Your task to perform on an android device: turn on notifications settings in the gmail app Image 0: 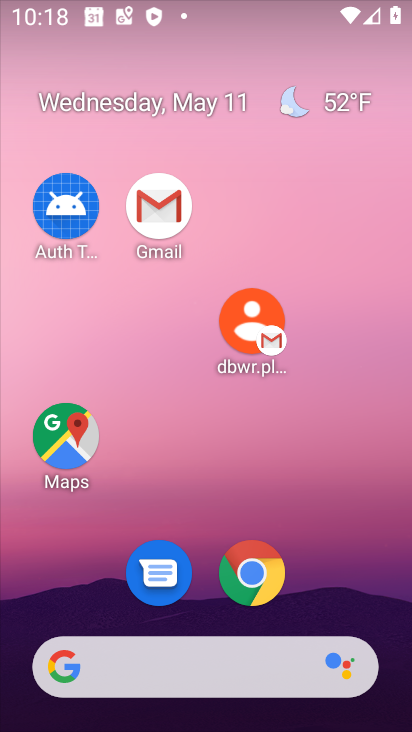
Step 0: drag from (404, 590) to (5, 109)
Your task to perform on an android device: turn on notifications settings in the gmail app Image 1: 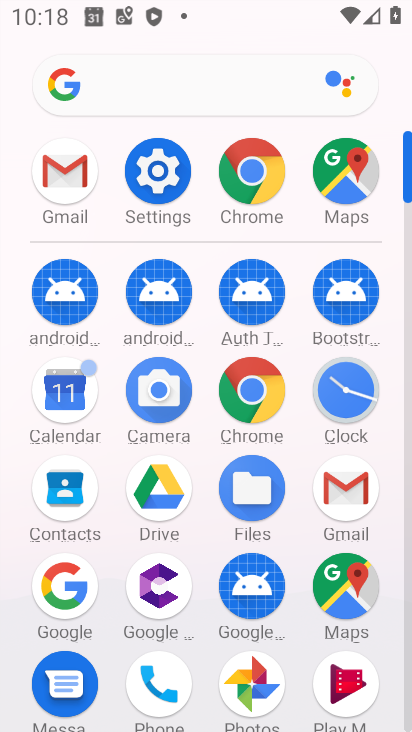
Step 1: click (348, 481)
Your task to perform on an android device: turn on notifications settings in the gmail app Image 2: 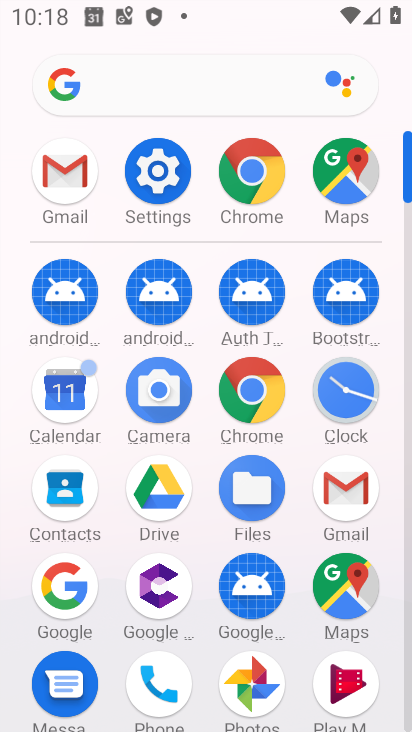
Step 2: click (349, 480)
Your task to perform on an android device: turn on notifications settings in the gmail app Image 3: 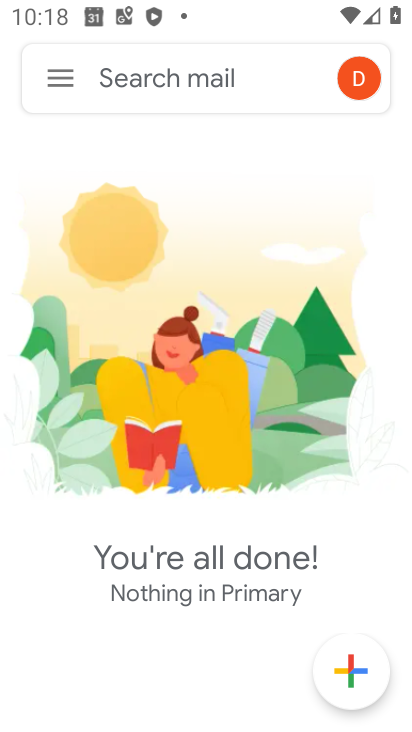
Step 3: click (62, 75)
Your task to perform on an android device: turn on notifications settings in the gmail app Image 4: 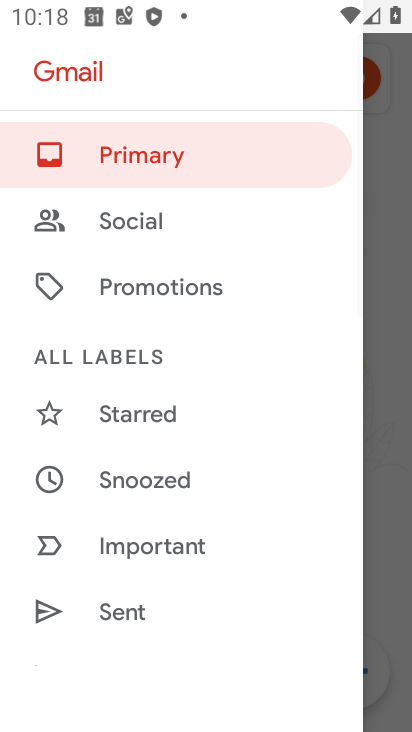
Step 4: drag from (139, 251) to (128, 170)
Your task to perform on an android device: turn on notifications settings in the gmail app Image 5: 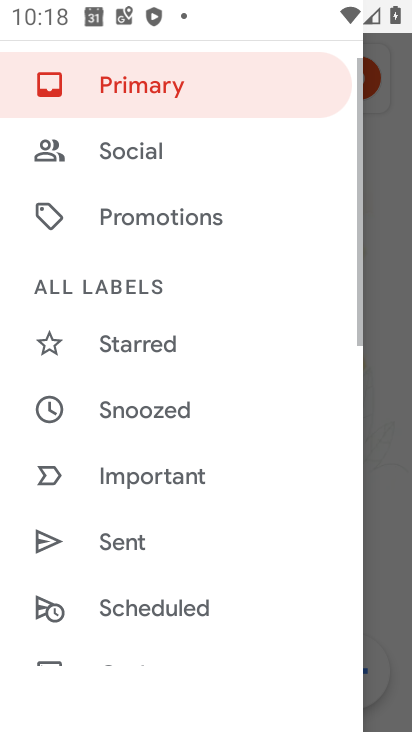
Step 5: drag from (150, 487) to (134, 96)
Your task to perform on an android device: turn on notifications settings in the gmail app Image 6: 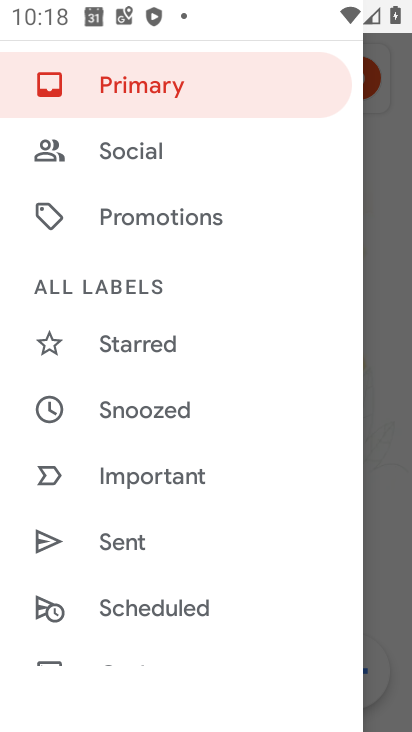
Step 6: drag from (160, 540) to (87, 65)
Your task to perform on an android device: turn on notifications settings in the gmail app Image 7: 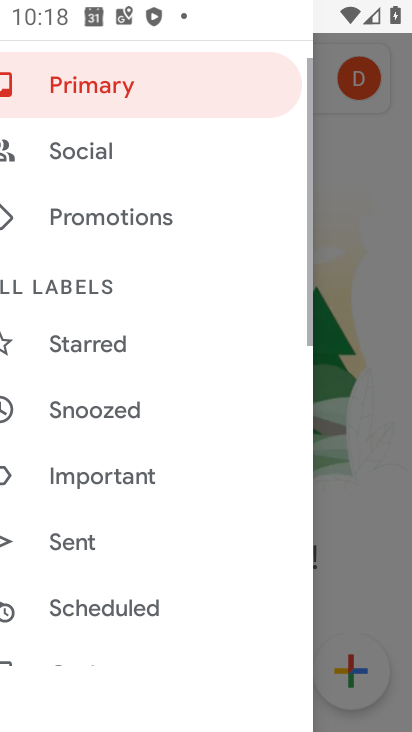
Step 7: drag from (138, 376) to (136, 1)
Your task to perform on an android device: turn on notifications settings in the gmail app Image 8: 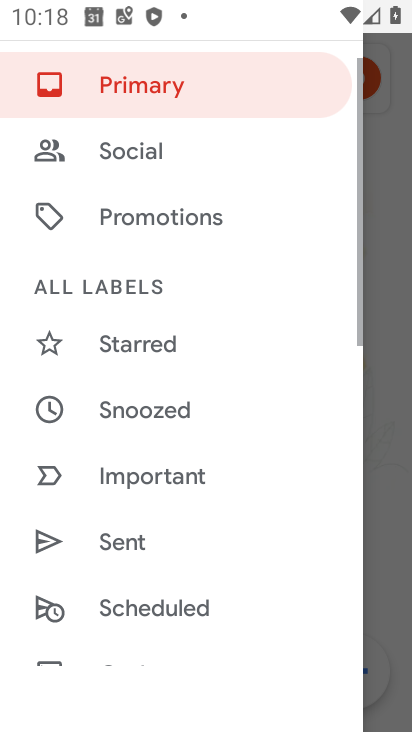
Step 8: drag from (159, 512) to (129, 15)
Your task to perform on an android device: turn on notifications settings in the gmail app Image 9: 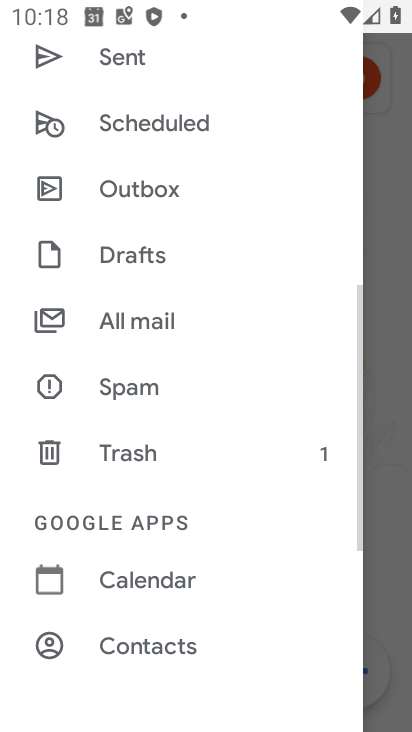
Step 9: drag from (175, 500) to (144, 129)
Your task to perform on an android device: turn on notifications settings in the gmail app Image 10: 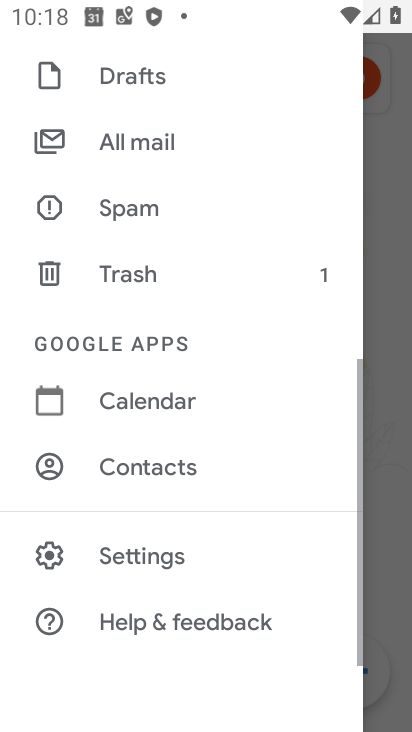
Step 10: click (132, 556)
Your task to perform on an android device: turn on notifications settings in the gmail app Image 11: 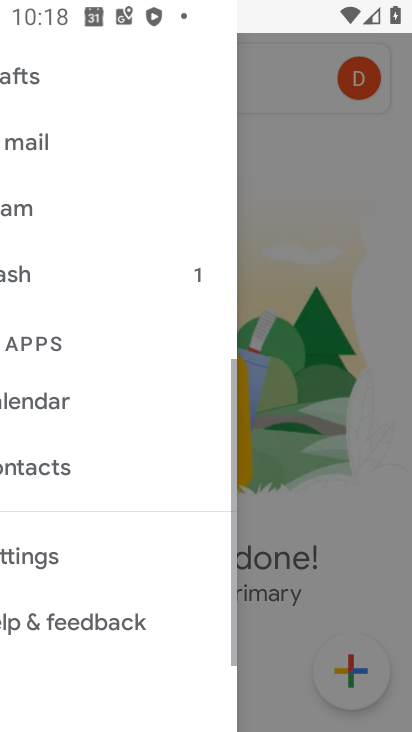
Step 11: click (134, 552)
Your task to perform on an android device: turn on notifications settings in the gmail app Image 12: 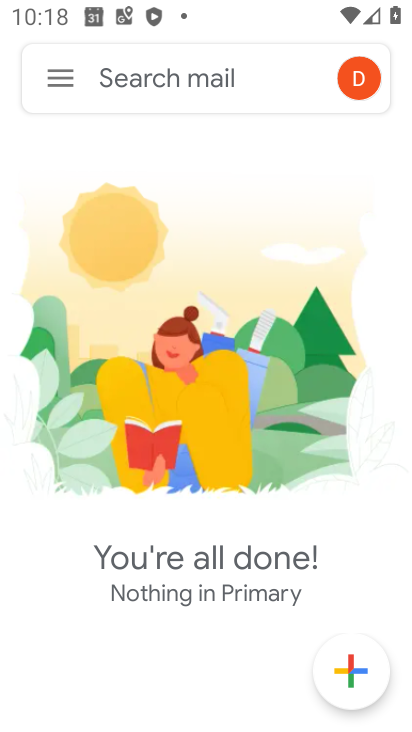
Step 12: click (135, 552)
Your task to perform on an android device: turn on notifications settings in the gmail app Image 13: 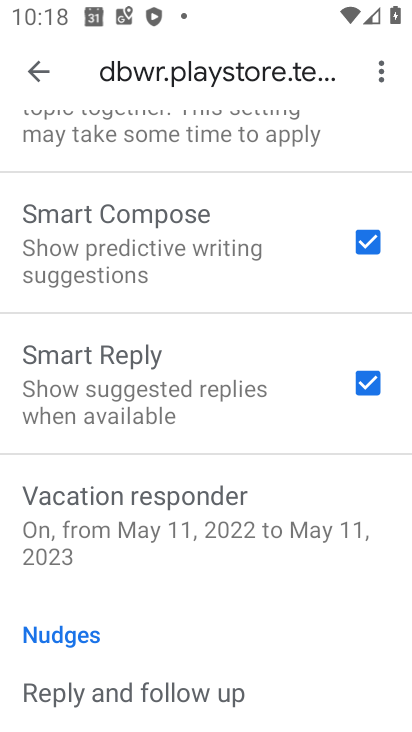
Step 13: drag from (194, 224) to (249, 466)
Your task to perform on an android device: turn on notifications settings in the gmail app Image 14: 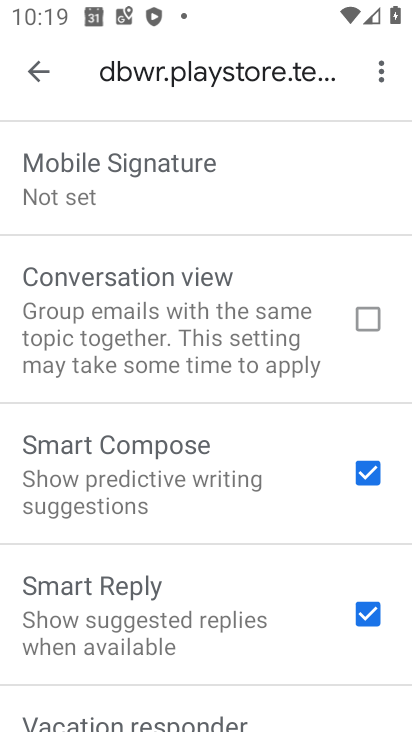
Step 14: click (149, 644)
Your task to perform on an android device: turn on notifications settings in the gmail app Image 15: 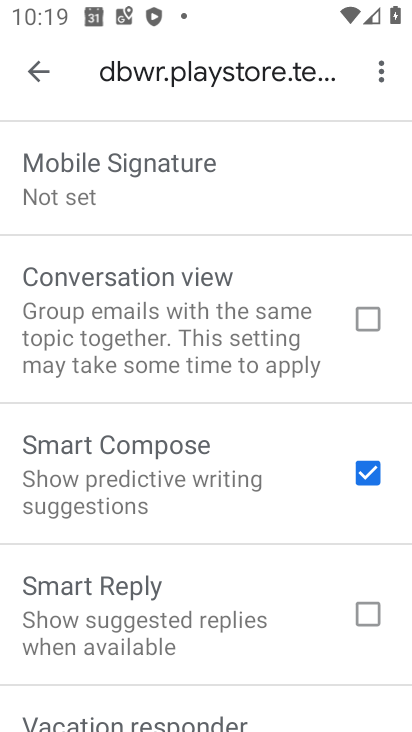
Step 15: click (370, 606)
Your task to perform on an android device: turn on notifications settings in the gmail app Image 16: 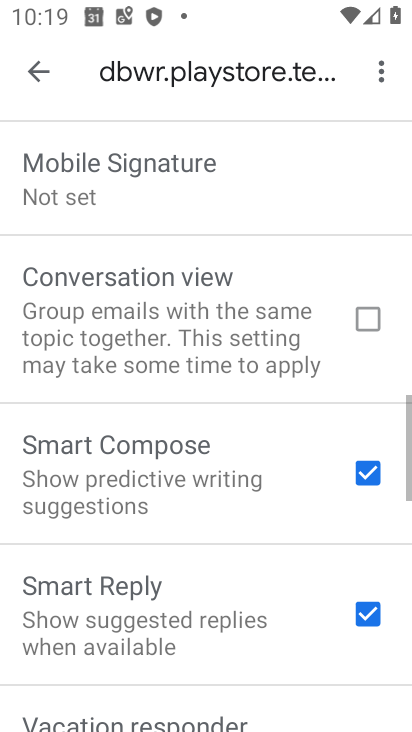
Step 16: drag from (150, 404) to (205, 595)
Your task to perform on an android device: turn on notifications settings in the gmail app Image 17: 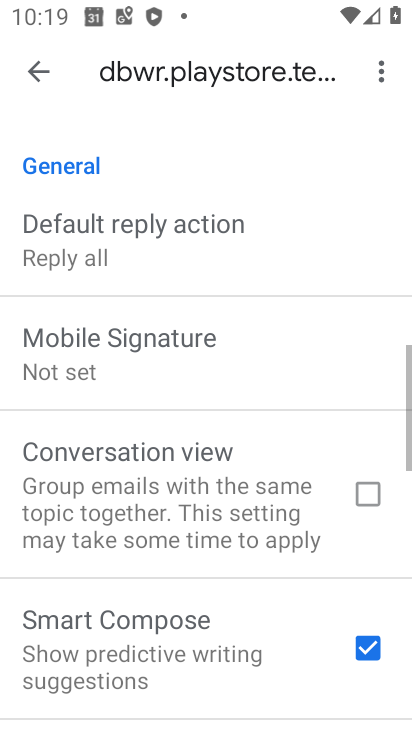
Step 17: drag from (169, 278) to (215, 563)
Your task to perform on an android device: turn on notifications settings in the gmail app Image 18: 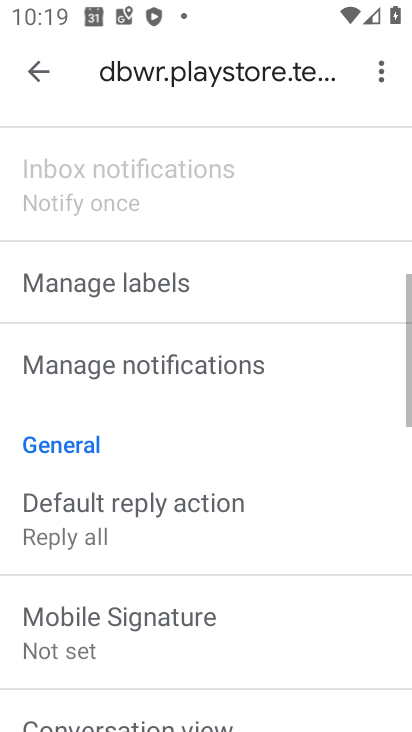
Step 18: drag from (173, 211) to (215, 447)
Your task to perform on an android device: turn on notifications settings in the gmail app Image 19: 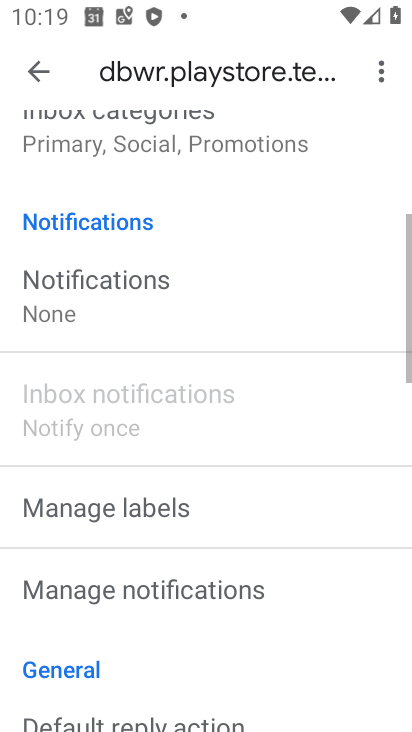
Step 19: drag from (148, 273) to (193, 472)
Your task to perform on an android device: turn on notifications settings in the gmail app Image 20: 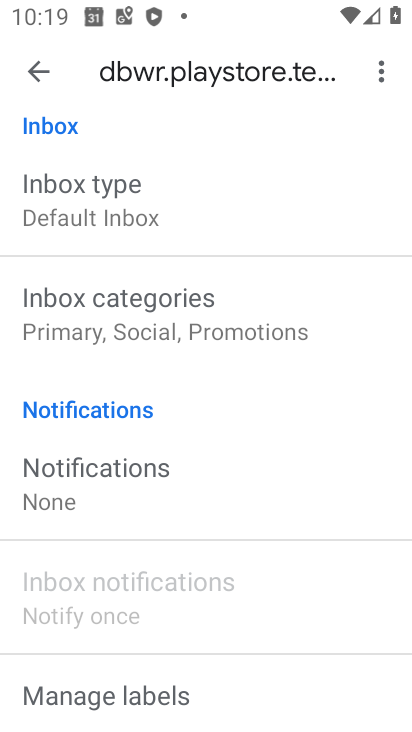
Step 20: drag from (88, 255) to (143, 434)
Your task to perform on an android device: turn on notifications settings in the gmail app Image 21: 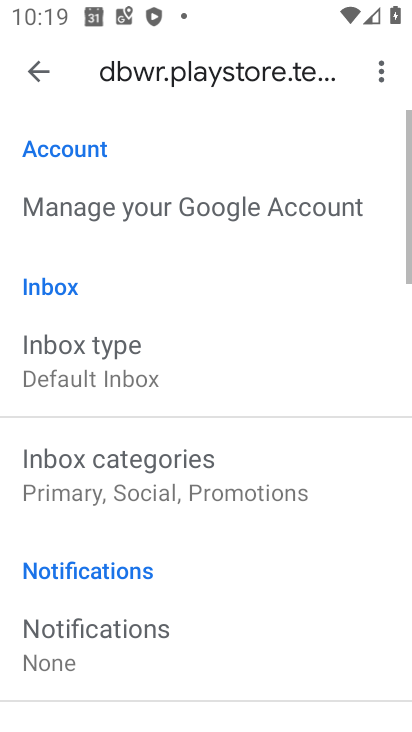
Step 21: drag from (135, 277) to (213, 558)
Your task to perform on an android device: turn on notifications settings in the gmail app Image 22: 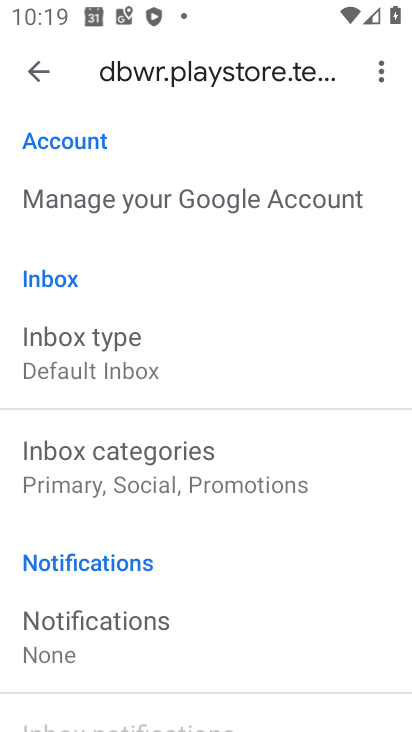
Step 22: drag from (207, 522) to (187, 272)
Your task to perform on an android device: turn on notifications settings in the gmail app Image 23: 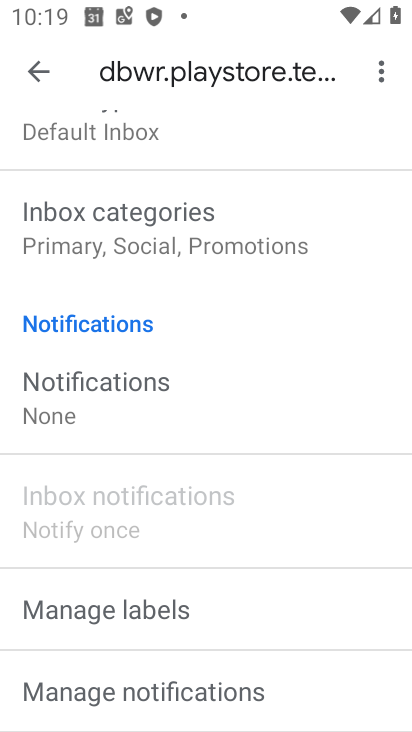
Step 23: click (72, 371)
Your task to perform on an android device: turn on notifications settings in the gmail app Image 24: 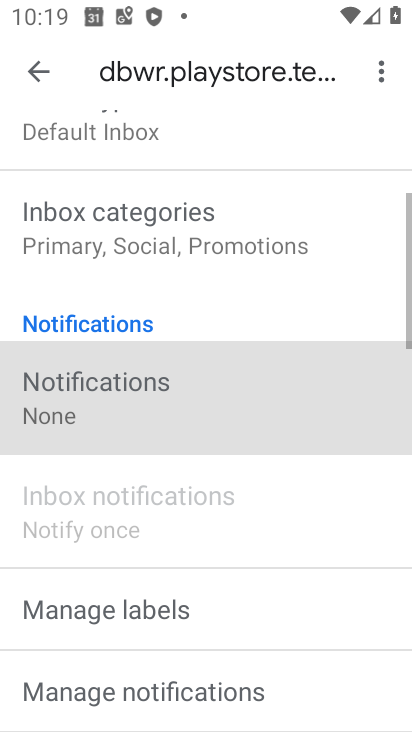
Step 24: click (72, 373)
Your task to perform on an android device: turn on notifications settings in the gmail app Image 25: 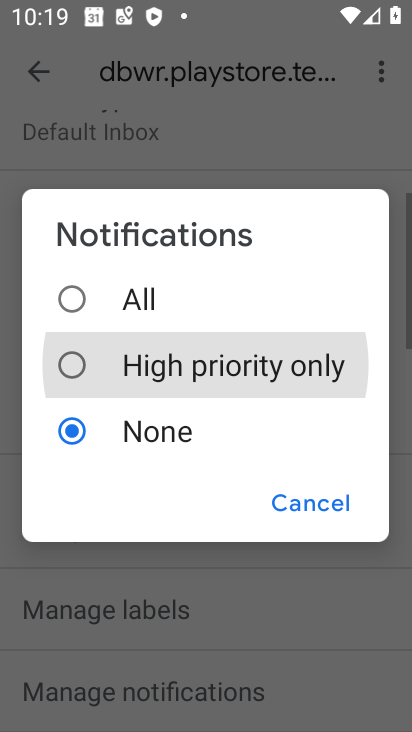
Step 25: click (73, 374)
Your task to perform on an android device: turn on notifications settings in the gmail app Image 26: 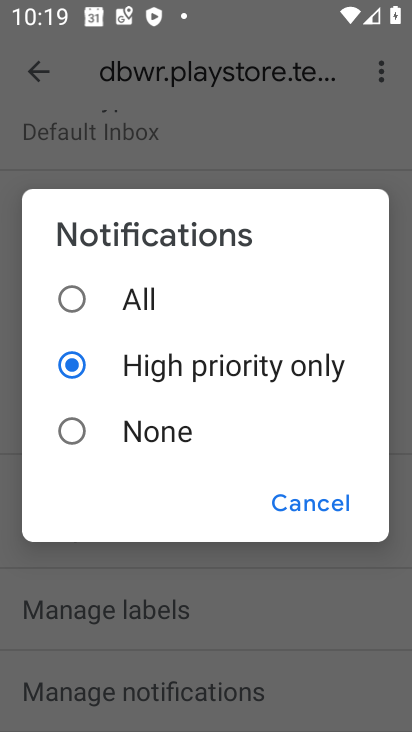
Step 26: click (63, 302)
Your task to perform on an android device: turn on notifications settings in the gmail app Image 27: 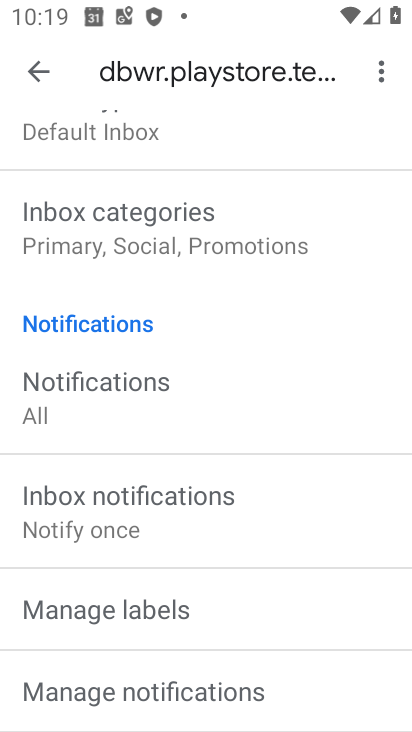
Step 27: press back button
Your task to perform on an android device: turn on notifications settings in the gmail app Image 28: 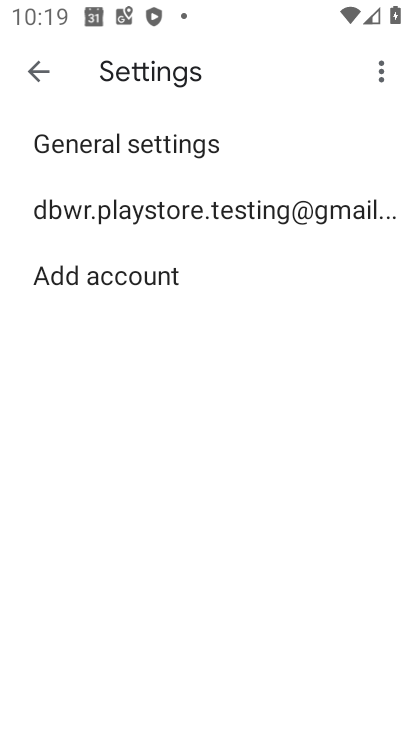
Step 28: press home button
Your task to perform on an android device: turn on notifications settings in the gmail app Image 29: 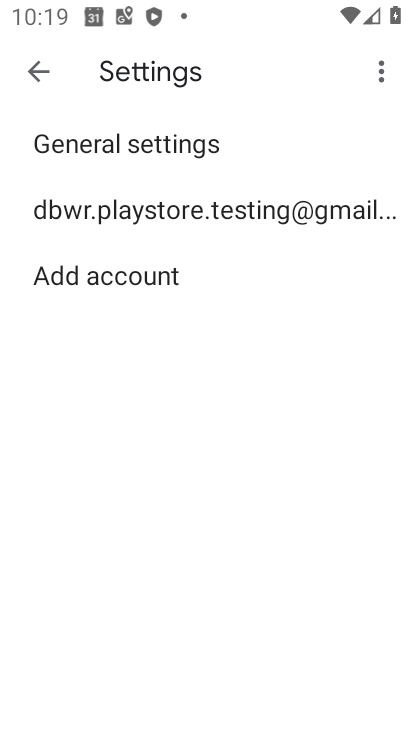
Step 29: press home button
Your task to perform on an android device: turn on notifications settings in the gmail app Image 30: 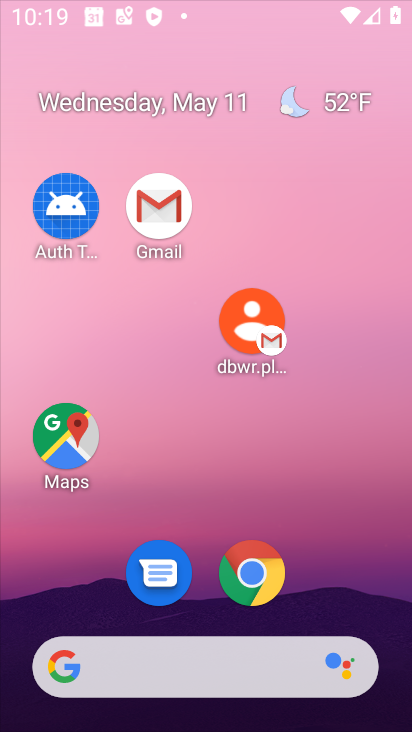
Step 30: press home button
Your task to perform on an android device: turn on notifications settings in the gmail app Image 31: 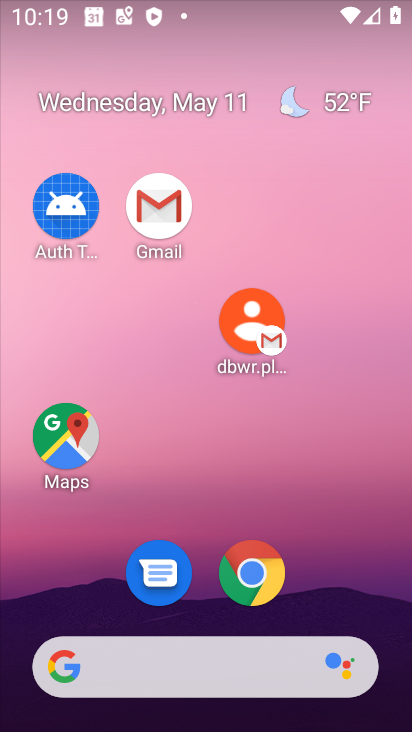
Step 31: press home button
Your task to perform on an android device: turn on notifications settings in the gmail app Image 32: 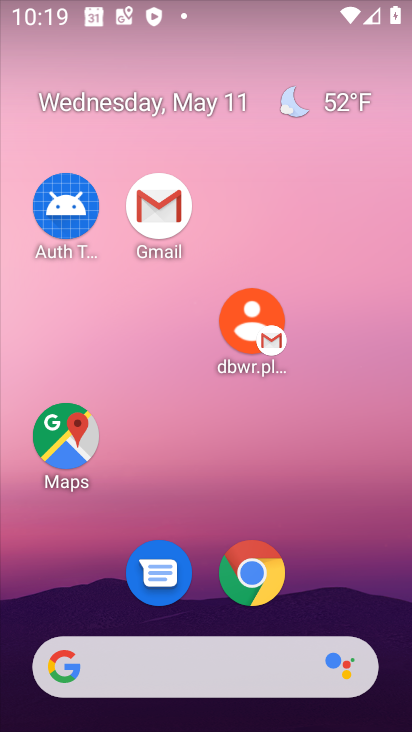
Step 32: drag from (384, 590) to (160, 89)
Your task to perform on an android device: turn on notifications settings in the gmail app Image 33: 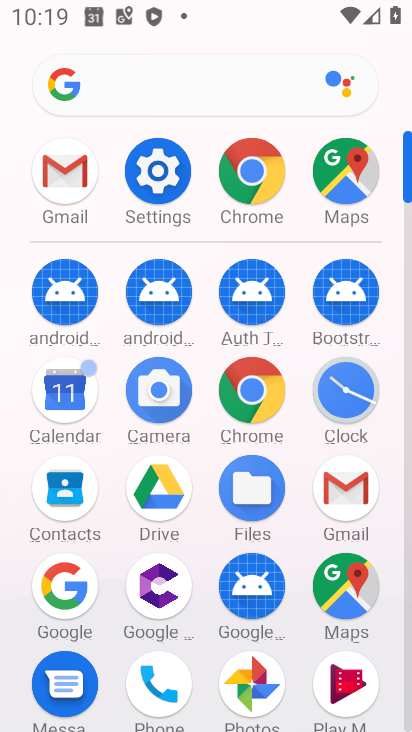
Step 33: click (349, 473)
Your task to perform on an android device: turn on notifications settings in the gmail app Image 34: 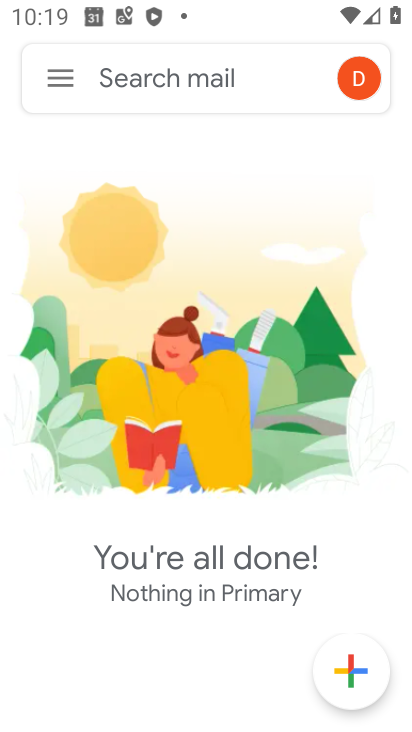
Step 34: click (66, 77)
Your task to perform on an android device: turn on notifications settings in the gmail app Image 35: 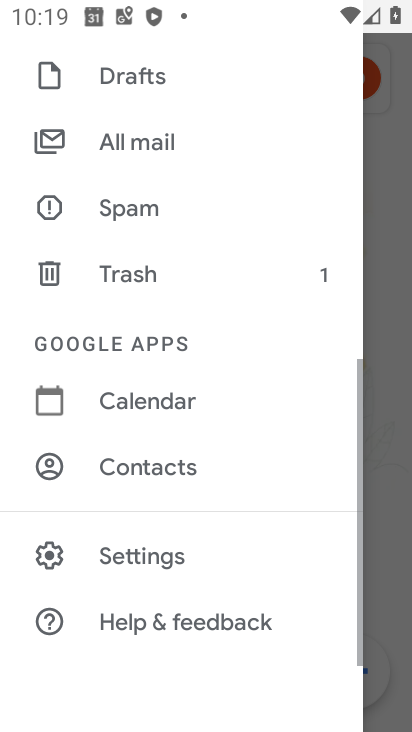
Step 35: click (143, 556)
Your task to perform on an android device: turn on notifications settings in the gmail app Image 36: 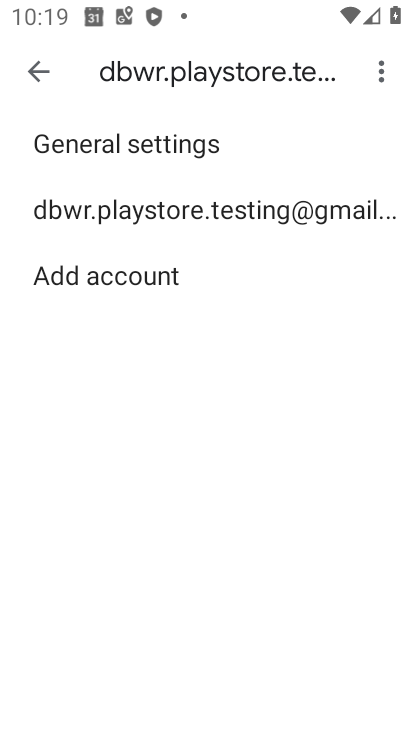
Step 36: click (183, 211)
Your task to perform on an android device: turn on notifications settings in the gmail app Image 37: 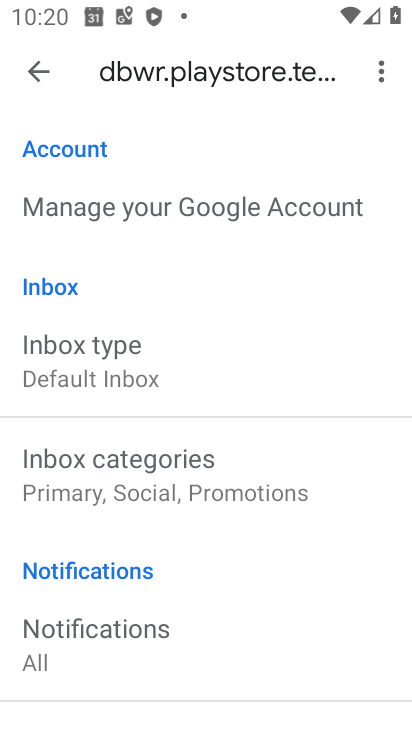
Step 37: click (60, 626)
Your task to perform on an android device: turn on notifications settings in the gmail app Image 38: 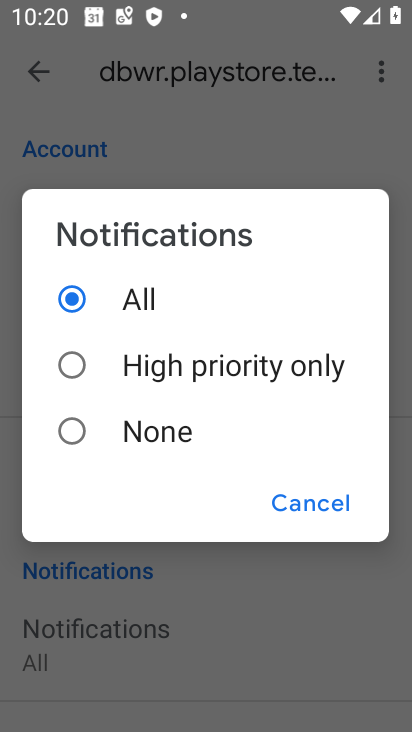
Step 38: task complete